Your task to perform on an android device: Open wifi settings Image 0: 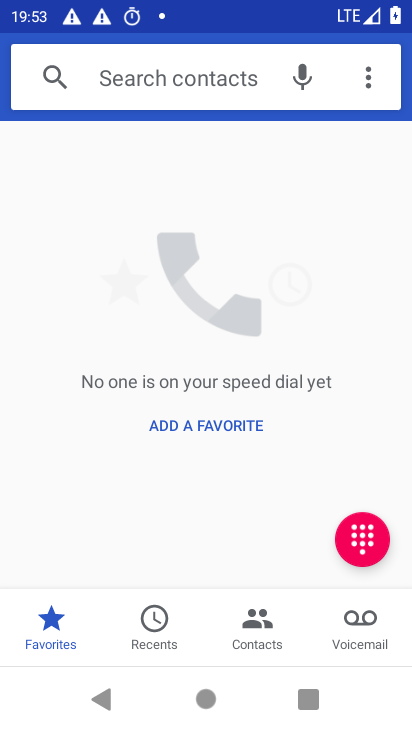
Step 0: press home button
Your task to perform on an android device: Open wifi settings Image 1: 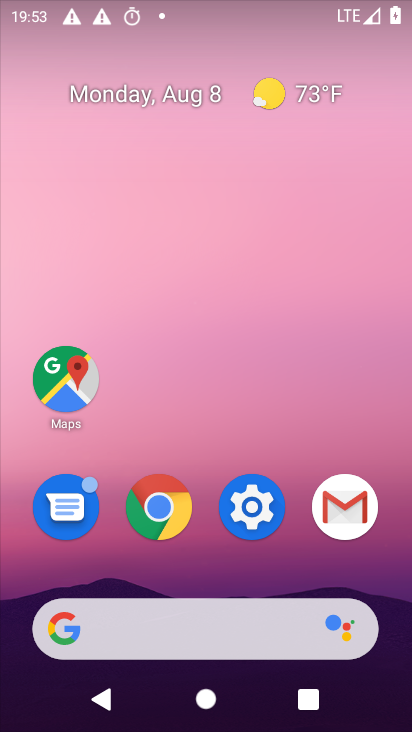
Step 1: click (254, 524)
Your task to perform on an android device: Open wifi settings Image 2: 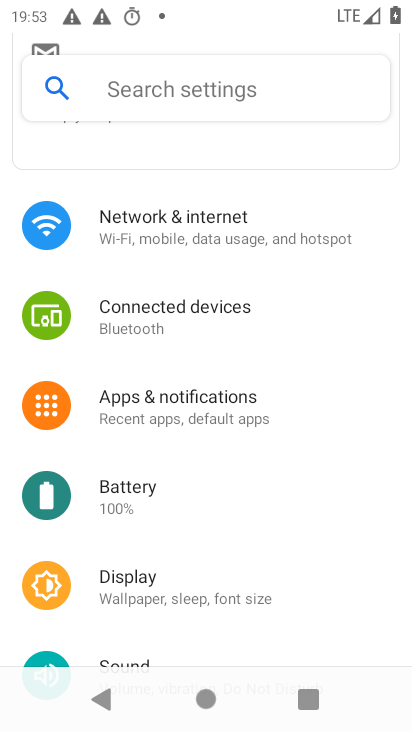
Step 2: click (204, 235)
Your task to perform on an android device: Open wifi settings Image 3: 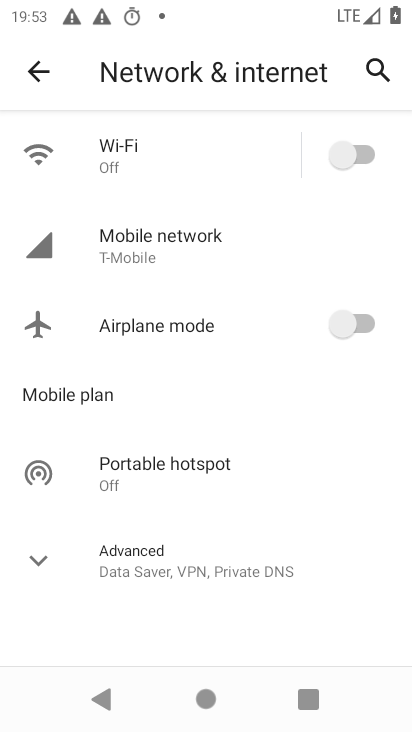
Step 3: click (128, 159)
Your task to perform on an android device: Open wifi settings Image 4: 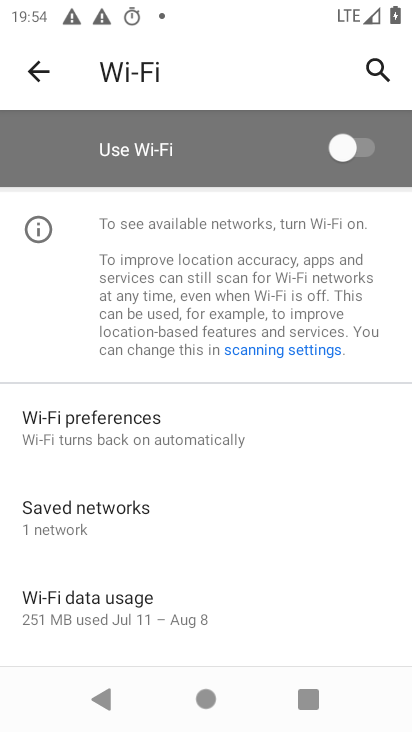
Step 4: task complete